Your task to perform on an android device: turn on sleep mode Image 0: 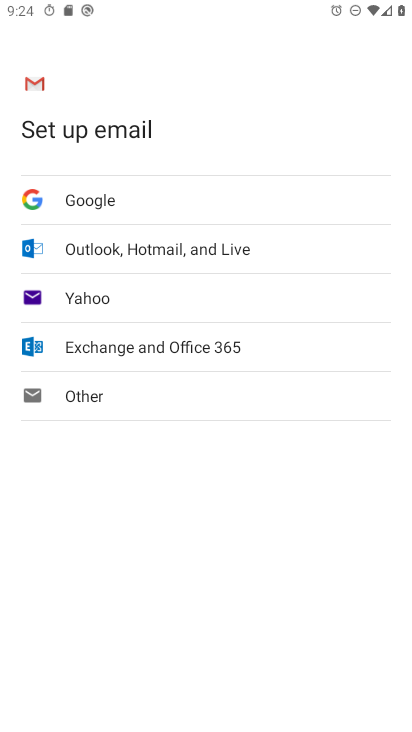
Step 0: press home button
Your task to perform on an android device: turn on sleep mode Image 1: 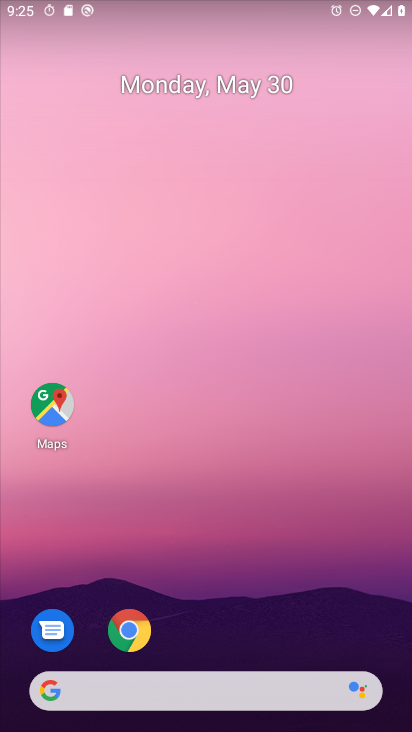
Step 1: drag from (164, 8) to (278, 367)
Your task to perform on an android device: turn on sleep mode Image 2: 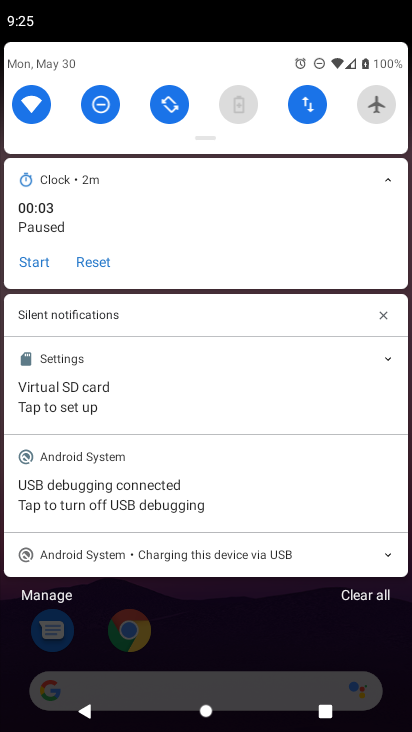
Step 2: drag from (193, 521) to (235, 22)
Your task to perform on an android device: turn on sleep mode Image 3: 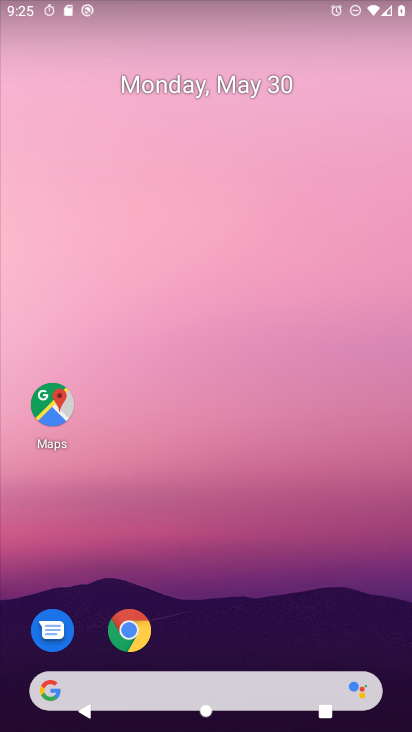
Step 3: drag from (327, 600) to (266, 0)
Your task to perform on an android device: turn on sleep mode Image 4: 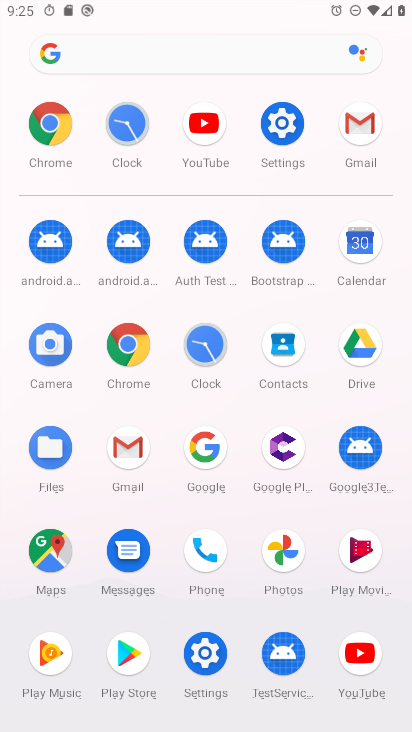
Step 4: click (282, 131)
Your task to perform on an android device: turn on sleep mode Image 5: 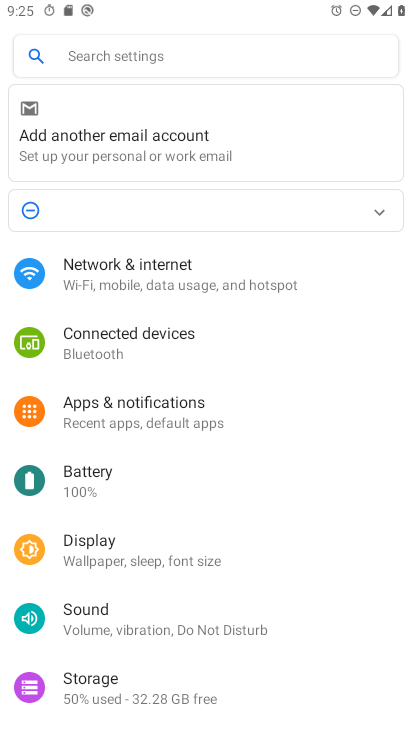
Step 5: task complete